Your task to perform on an android device: uninstall "Yahoo Mail" Image 0: 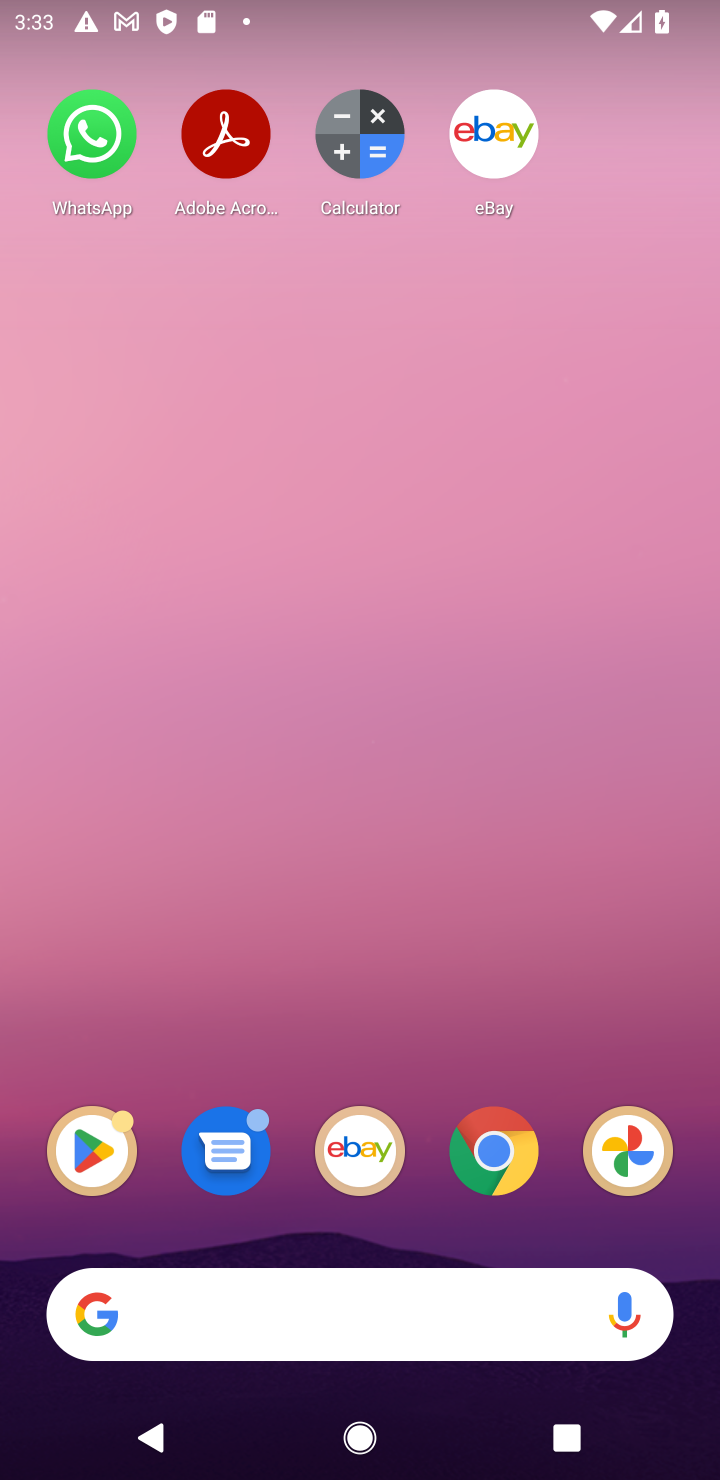
Step 0: press back button
Your task to perform on an android device: uninstall "Yahoo Mail" Image 1: 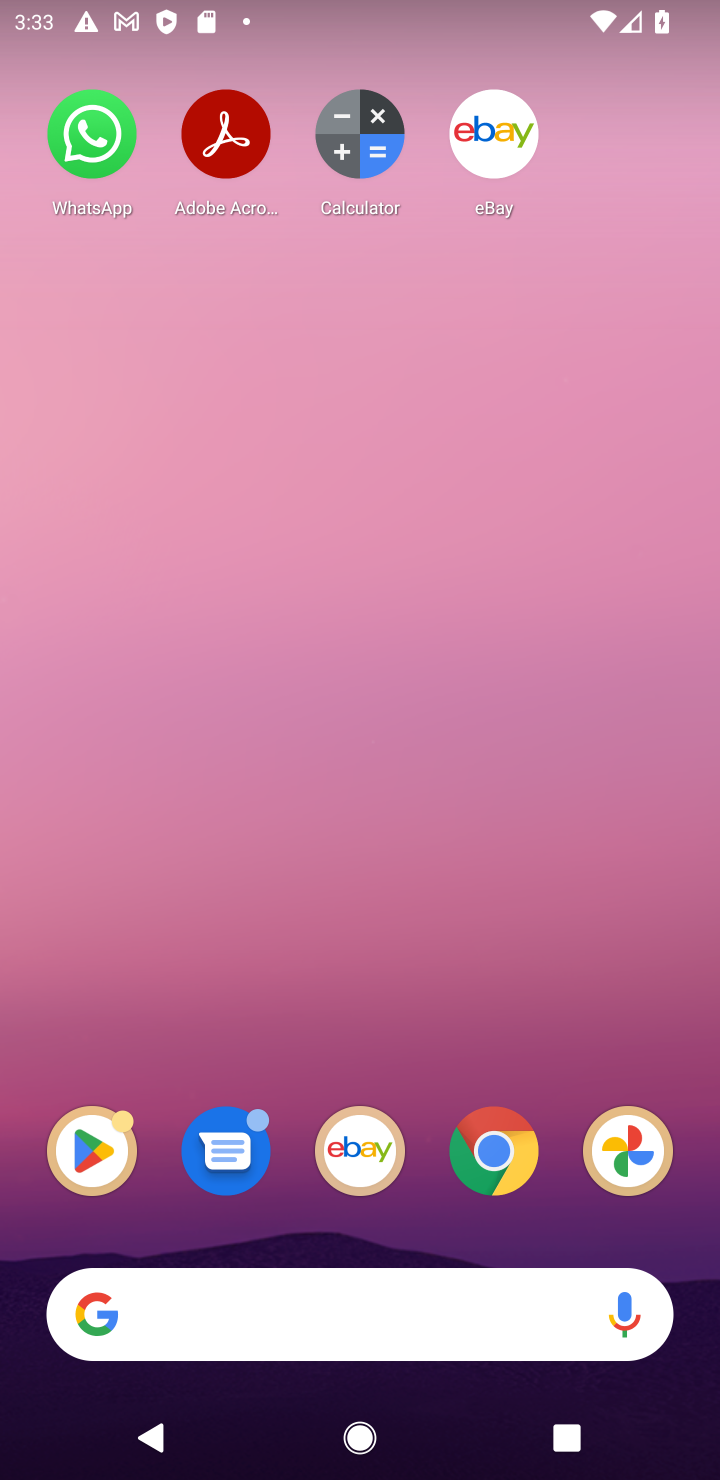
Step 1: click (510, 1163)
Your task to perform on an android device: uninstall "Yahoo Mail" Image 2: 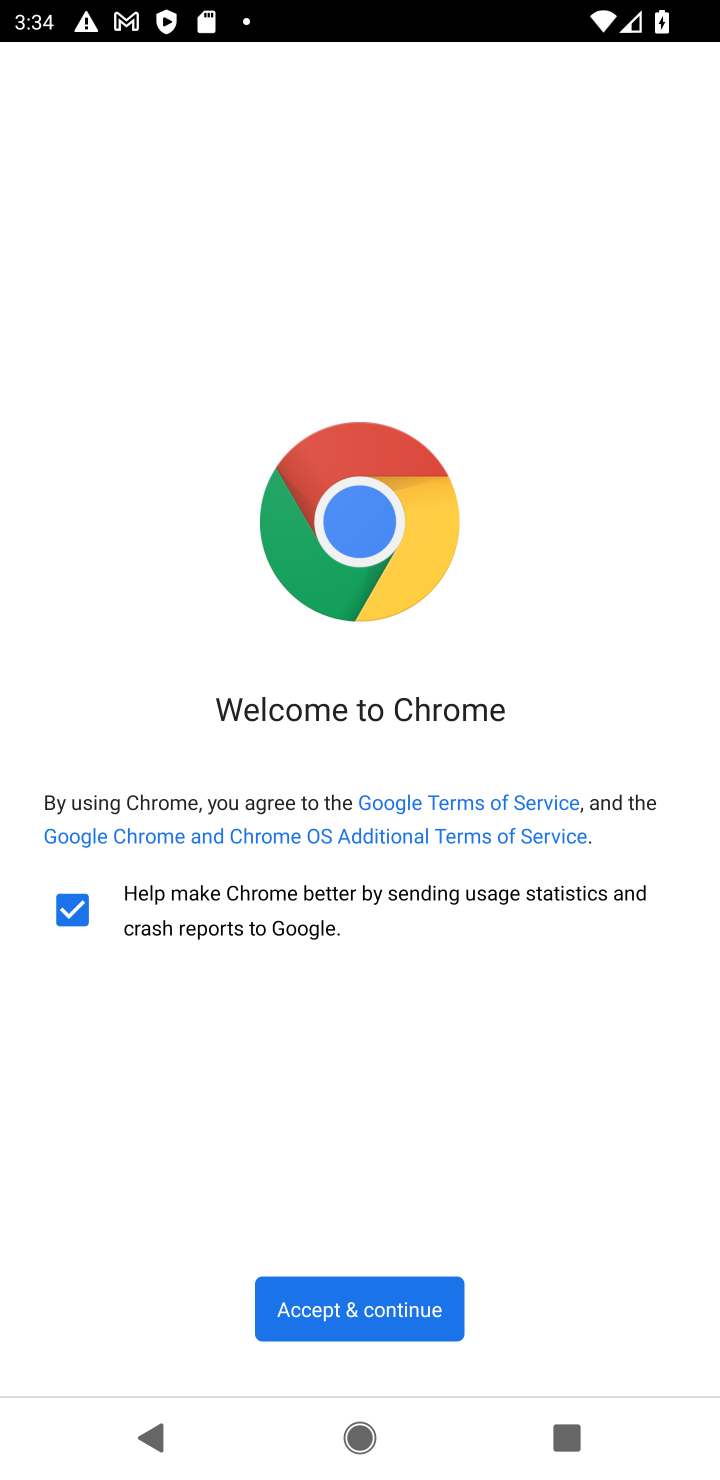
Step 2: click (440, 1313)
Your task to perform on an android device: uninstall "Yahoo Mail" Image 3: 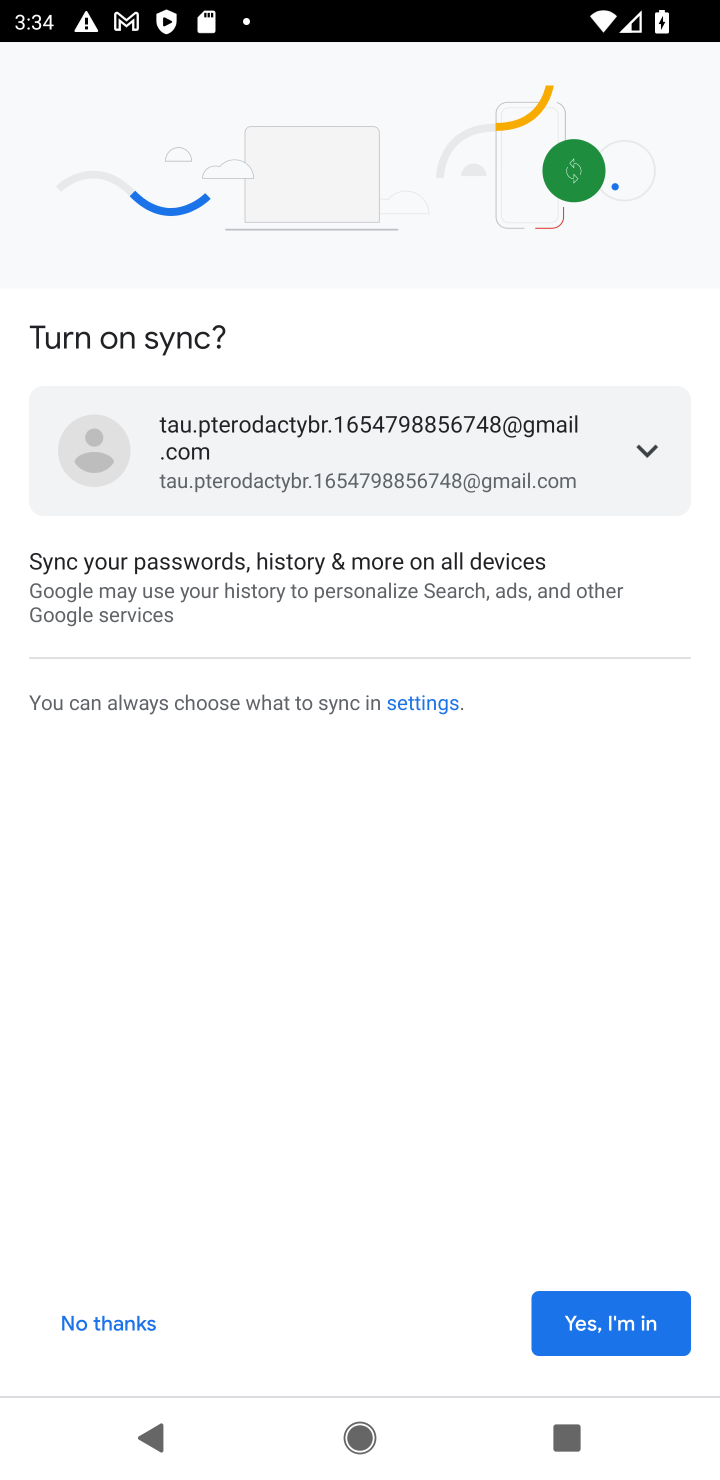
Step 3: press home button
Your task to perform on an android device: uninstall "Yahoo Mail" Image 4: 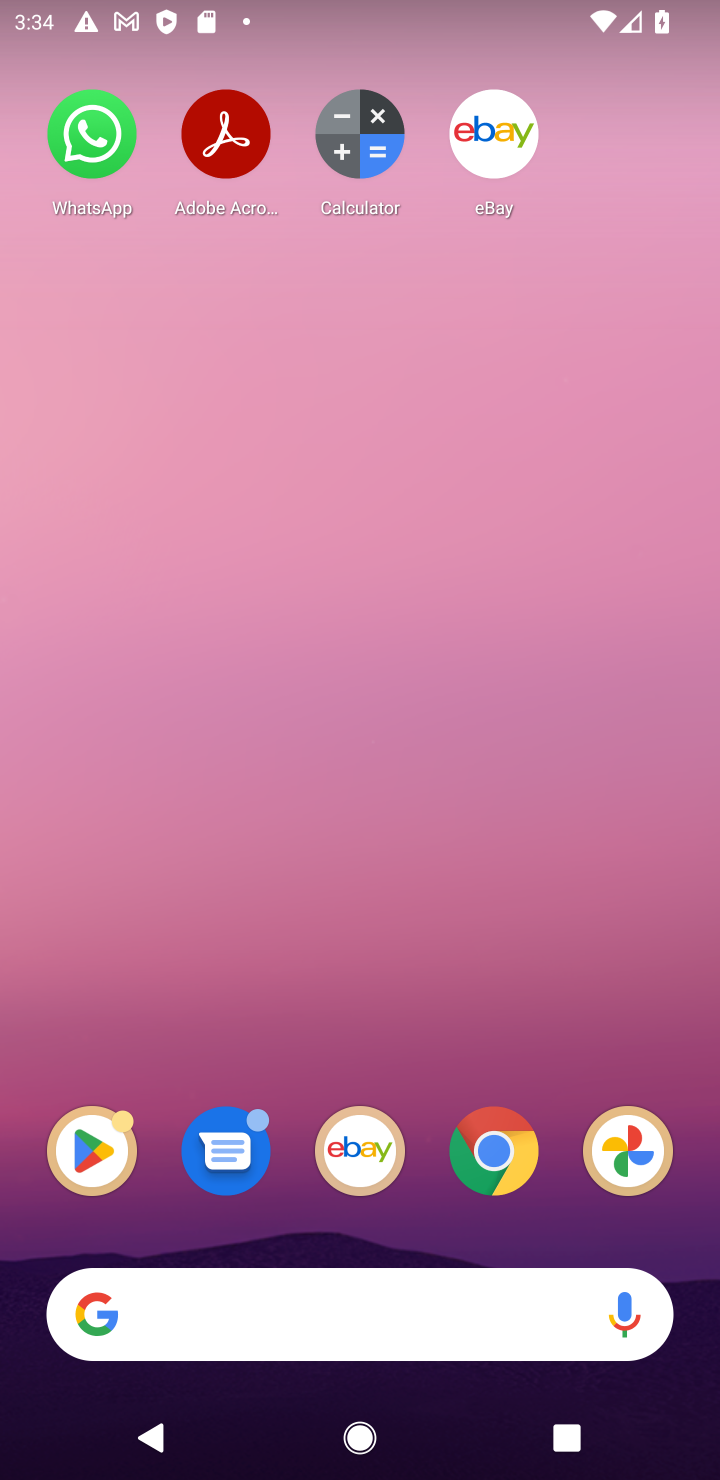
Step 4: click (70, 1166)
Your task to perform on an android device: uninstall "Yahoo Mail" Image 5: 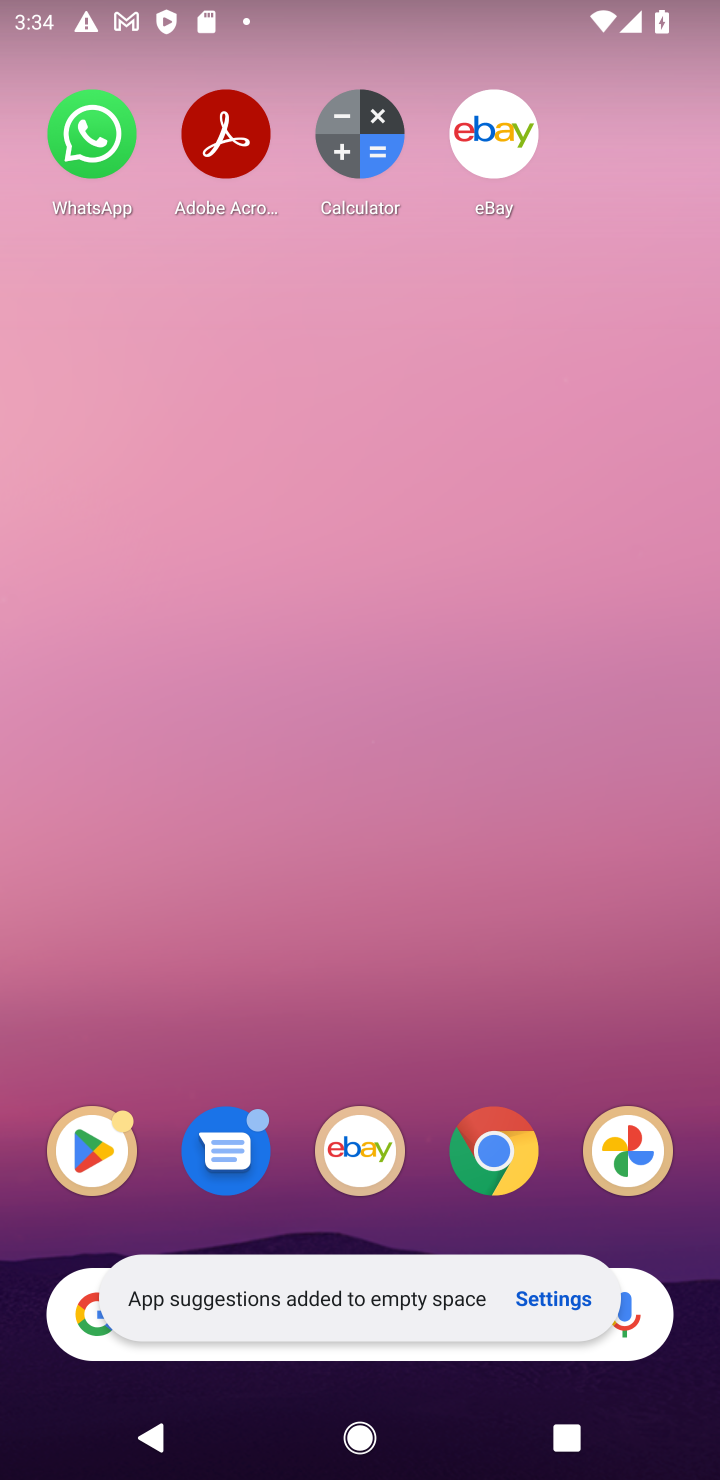
Step 5: click (88, 1182)
Your task to perform on an android device: uninstall "Yahoo Mail" Image 6: 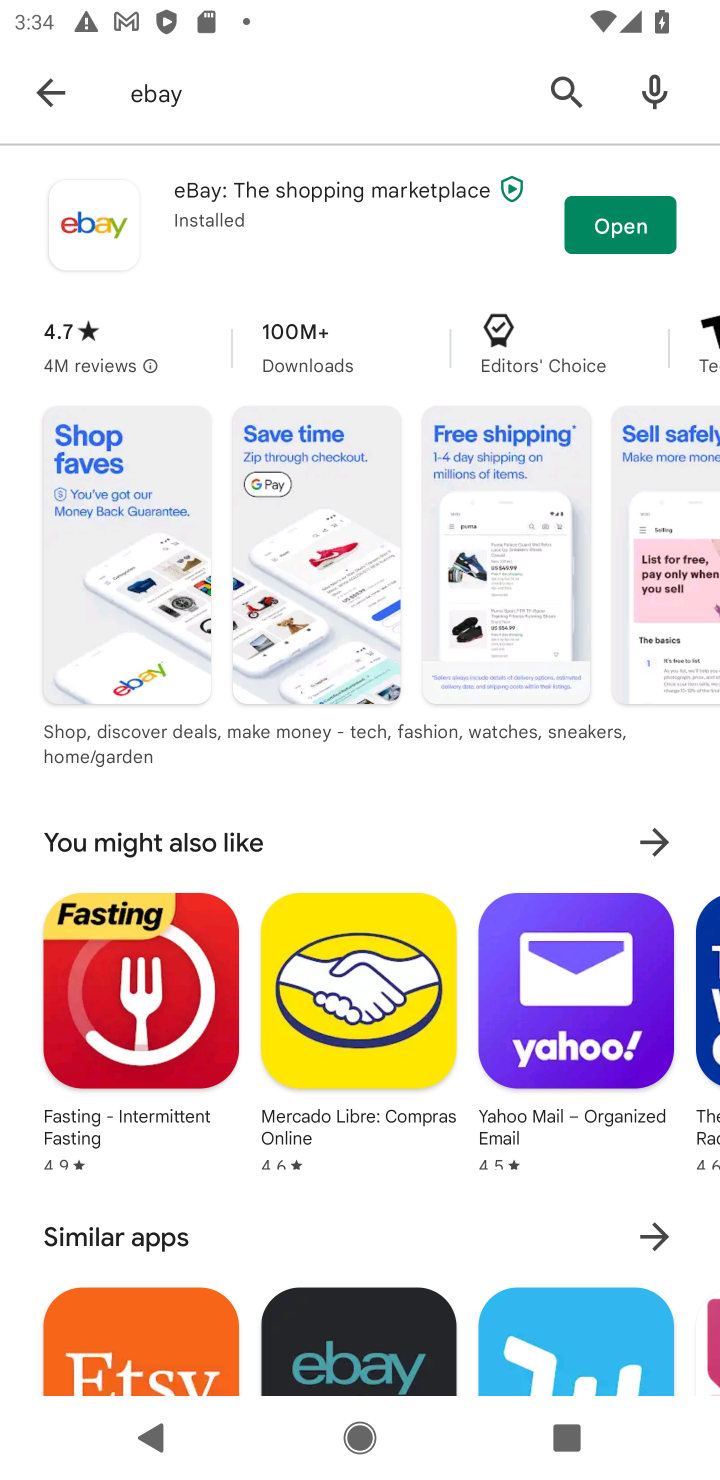
Step 6: click (545, 83)
Your task to perform on an android device: uninstall "Yahoo Mail" Image 7: 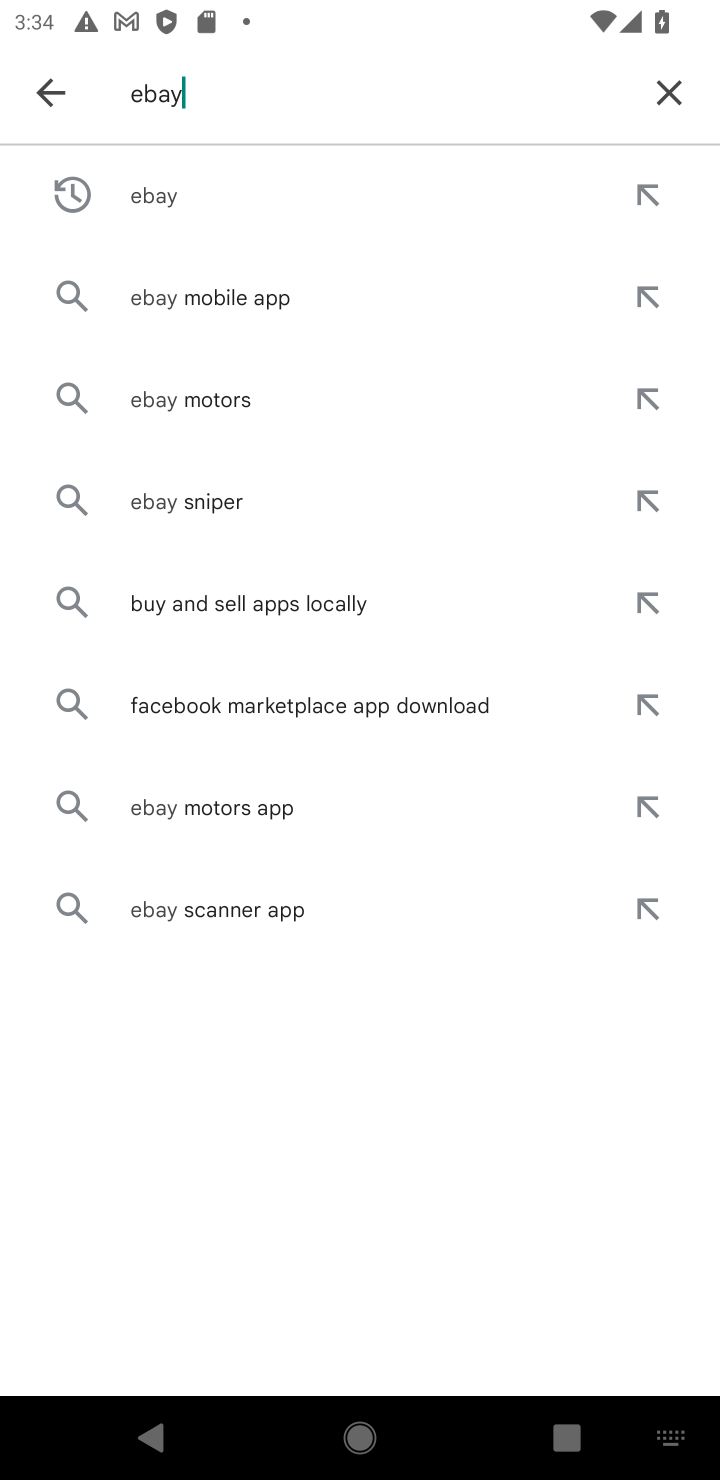
Step 7: click (673, 89)
Your task to perform on an android device: uninstall "Yahoo Mail" Image 8: 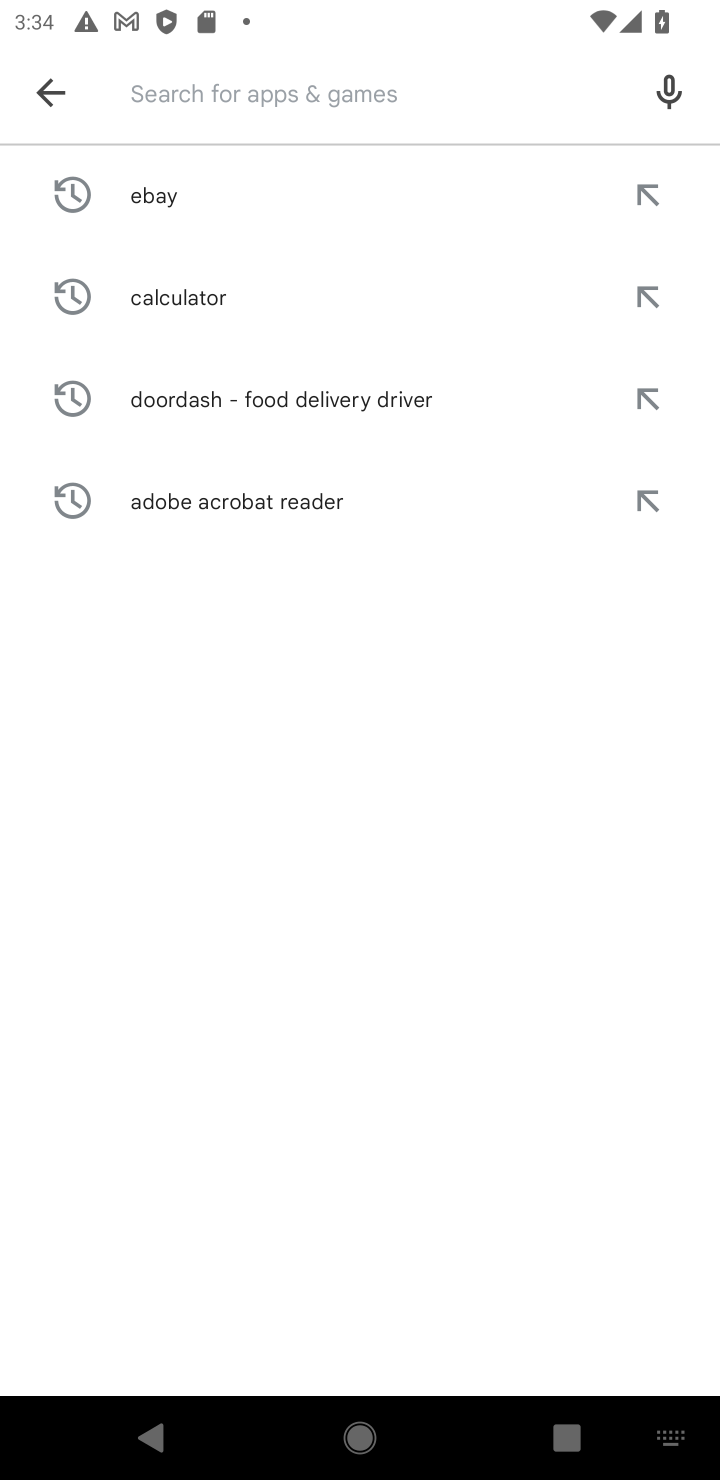
Step 8: click (385, 93)
Your task to perform on an android device: uninstall "Yahoo Mail" Image 9: 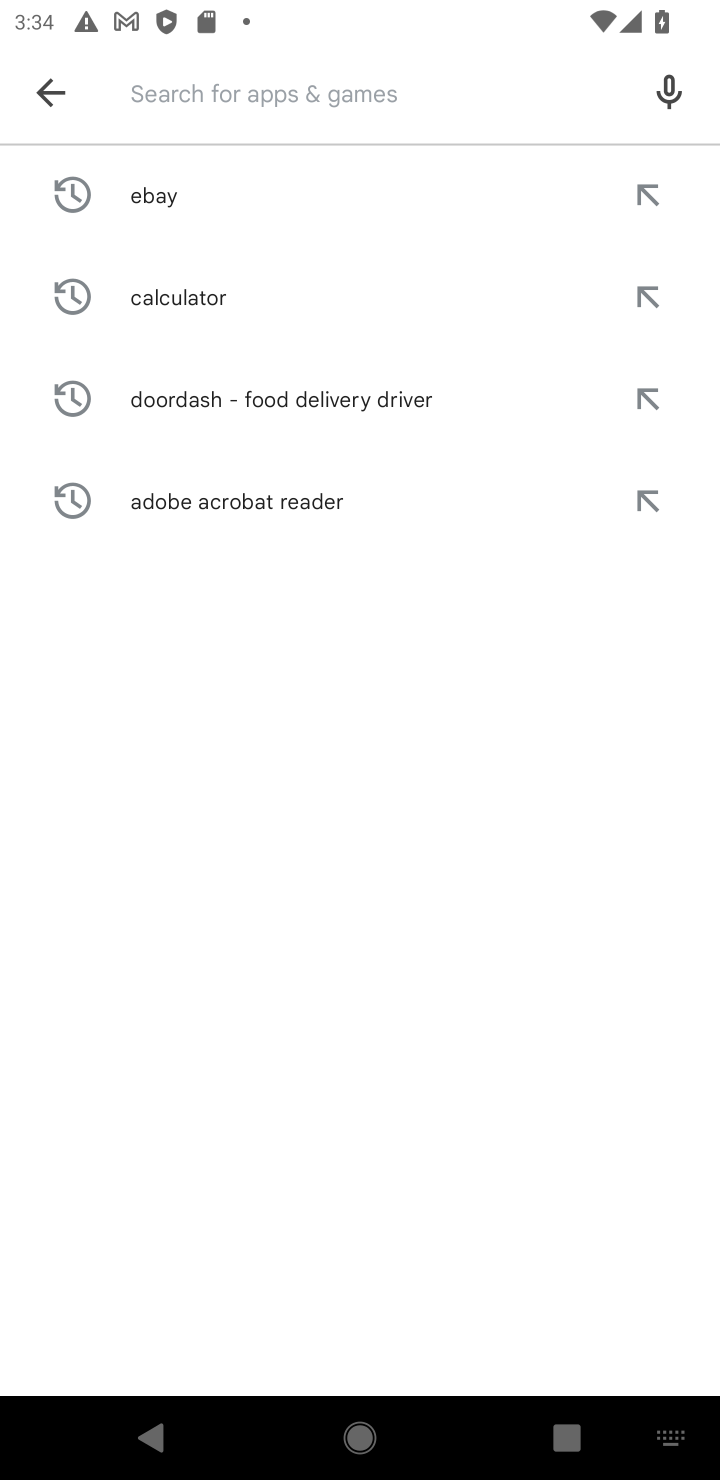
Step 9: type "Yahoo Mail"
Your task to perform on an android device: uninstall "Yahoo Mail" Image 10: 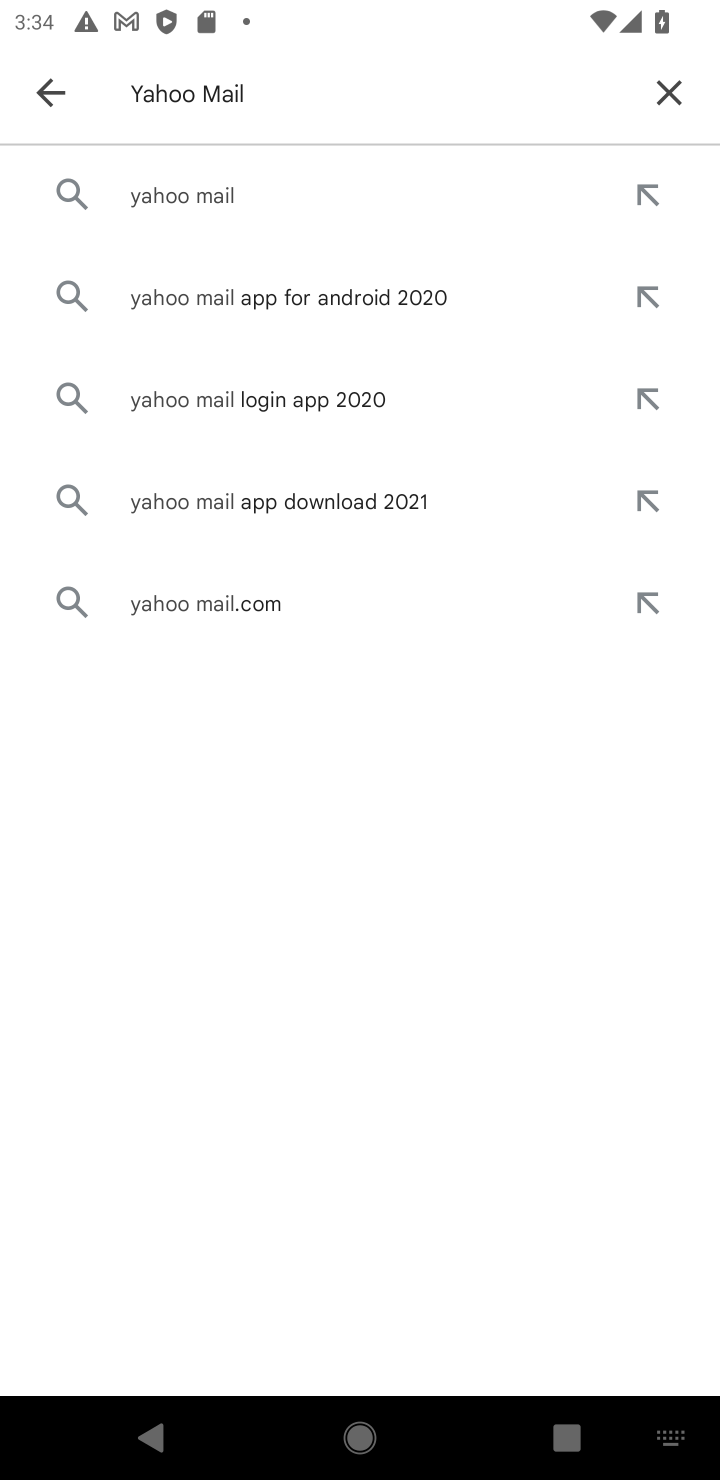
Step 10: click (62, 192)
Your task to perform on an android device: uninstall "Yahoo Mail" Image 11: 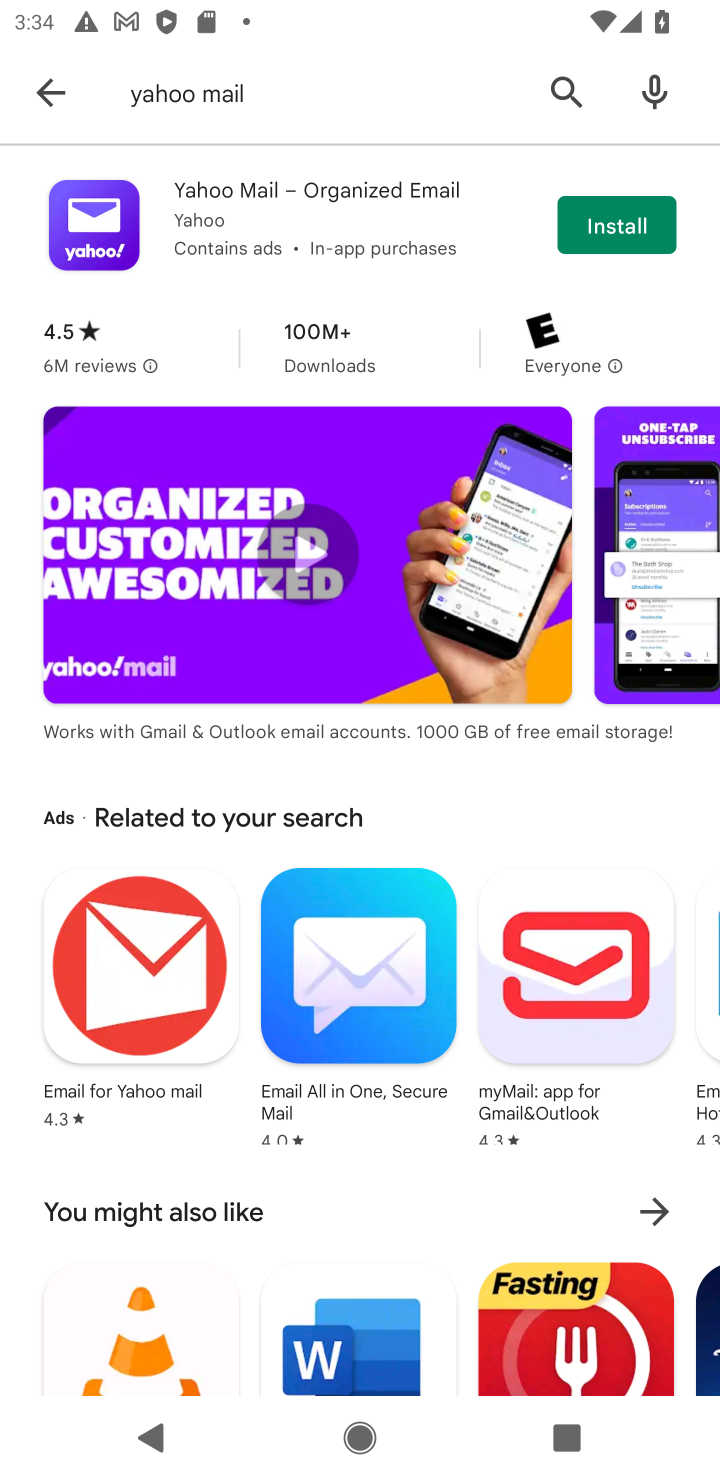
Step 11: task complete